Your task to perform on an android device: Find coffee shops on Maps Image 0: 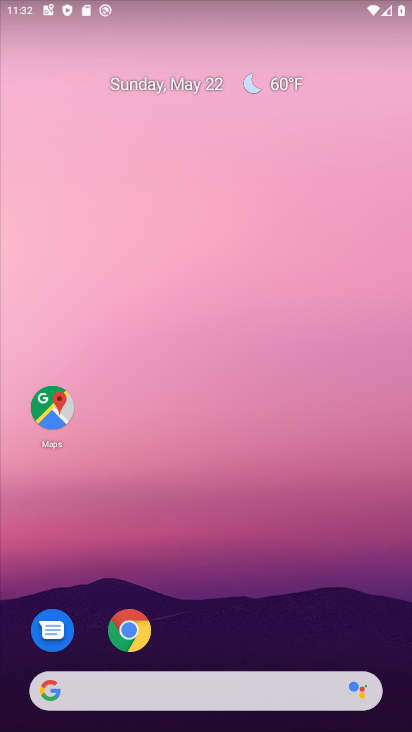
Step 0: click (52, 410)
Your task to perform on an android device: Find coffee shops on Maps Image 1: 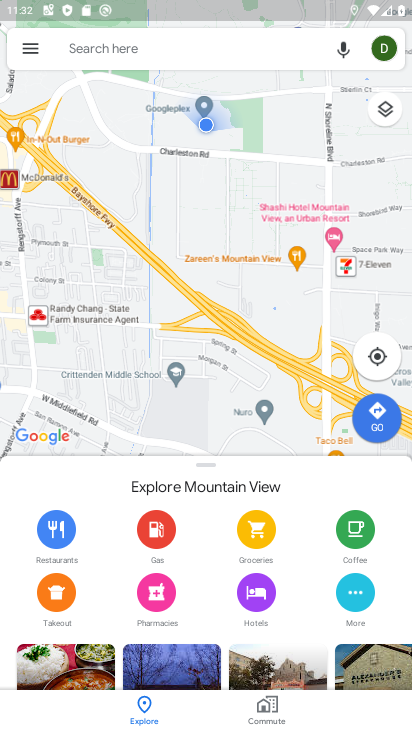
Step 1: click (156, 39)
Your task to perform on an android device: Find coffee shops on Maps Image 2: 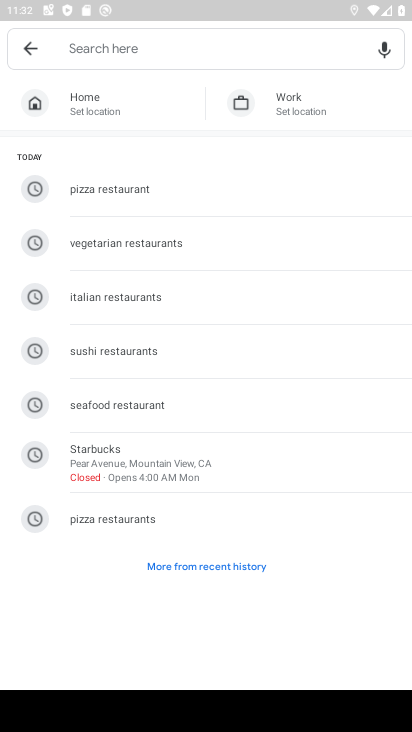
Step 2: type "coffee shopes"
Your task to perform on an android device: Find coffee shops on Maps Image 3: 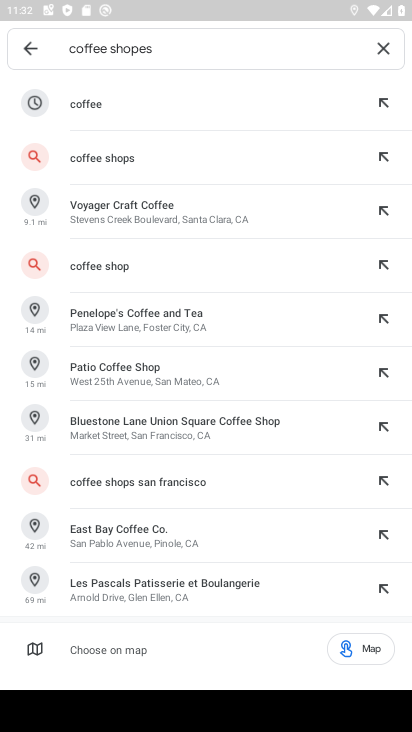
Step 3: click (104, 152)
Your task to perform on an android device: Find coffee shops on Maps Image 4: 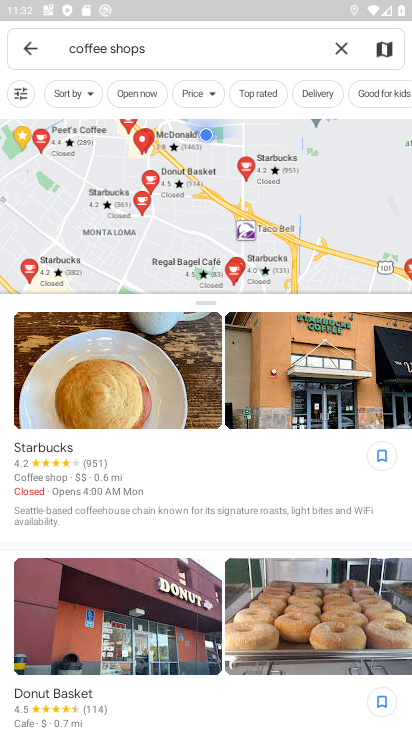
Step 4: task complete